Your task to perform on an android device: turn on airplane mode Image 0: 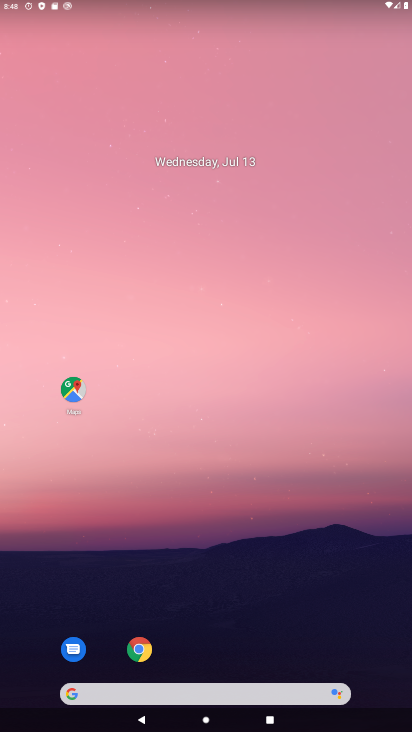
Step 0: drag from (303, 679) to (300, 140)
Your task to perform on an android device: turn on airplane mode Image 1: 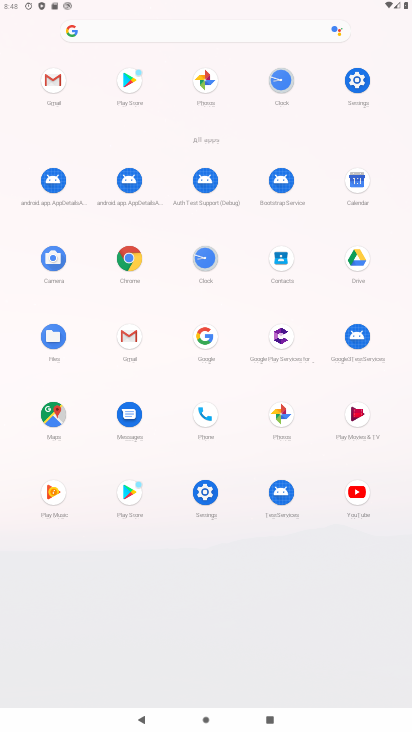
Step 1: click (343, 76)
Your task to perform on an android device: turn on airplane mode Image 2: 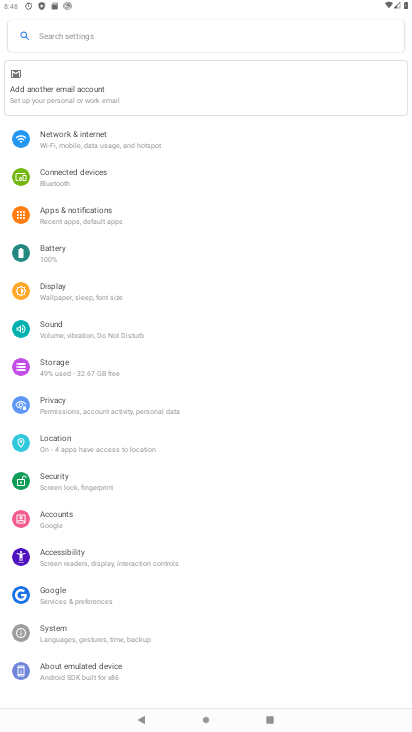
Step 2: click (144, 144)
Your task to perform on an android device: turn on airplane mode Image 3: 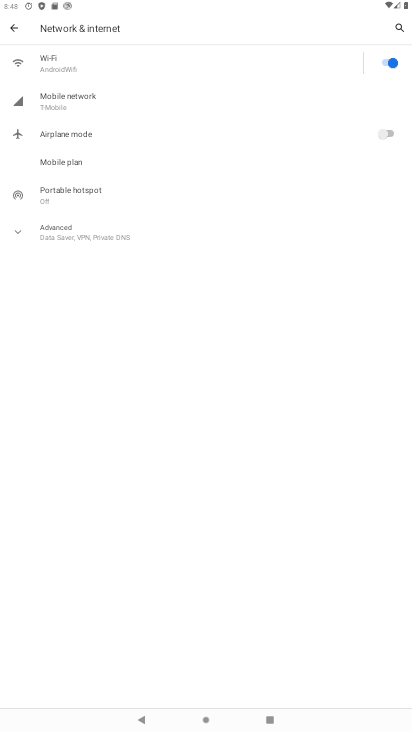
Step 3: click (387, 129)
Your task to perform on an android device: turn on airplane mode Image 4: 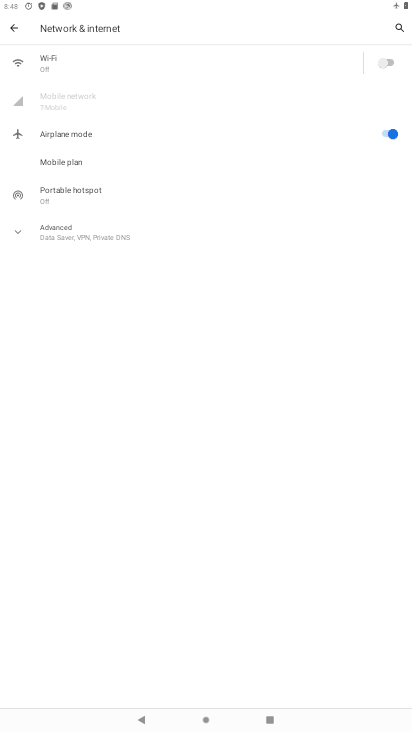
Step 4: task complete